Your task to perform on an android device: Open accessibility settings Image 0: 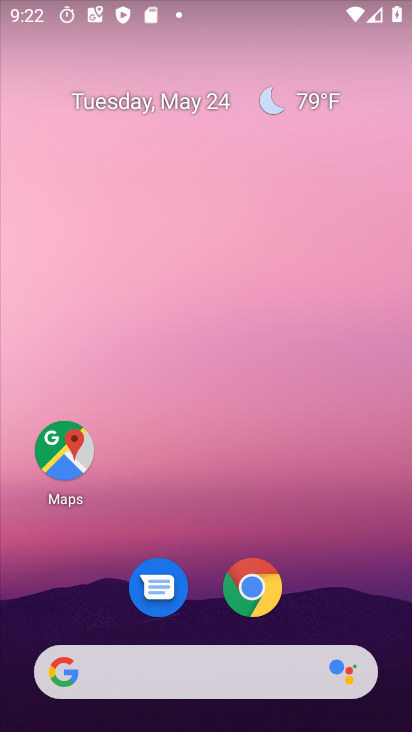
Step 0: drag from (338, 627) to (249, 81)
Your task to perform on an android device: Open accessibility settings Image 1: 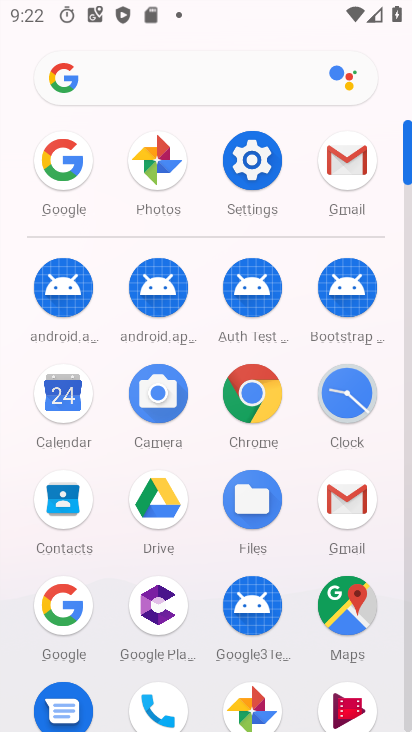
Step 1: click (255, 157)
Your task to perform on an android device: Open accessibility settings Image 2: 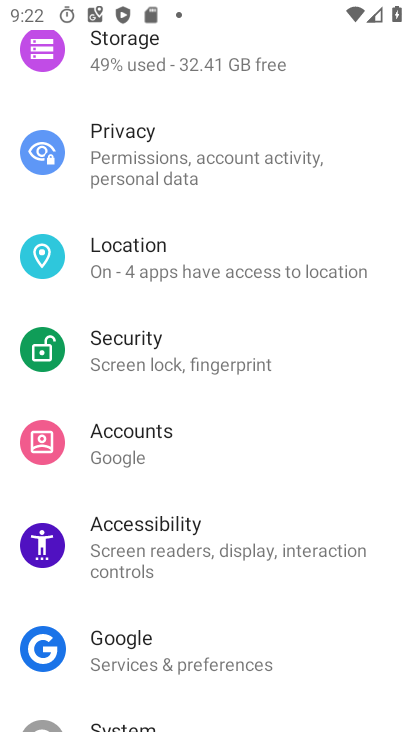
Step 2: click (156, 555)
Your task to perform on an android device: Open accessibility settings Image 3: 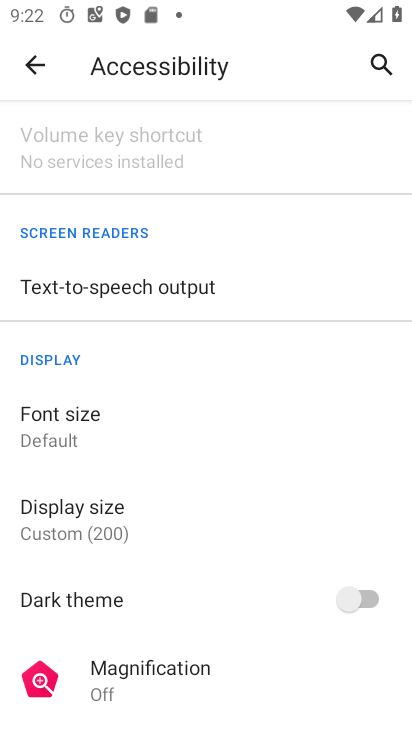
Step 3: task complete